Your task to perform on an android device: When is my next meeting? Image 0: 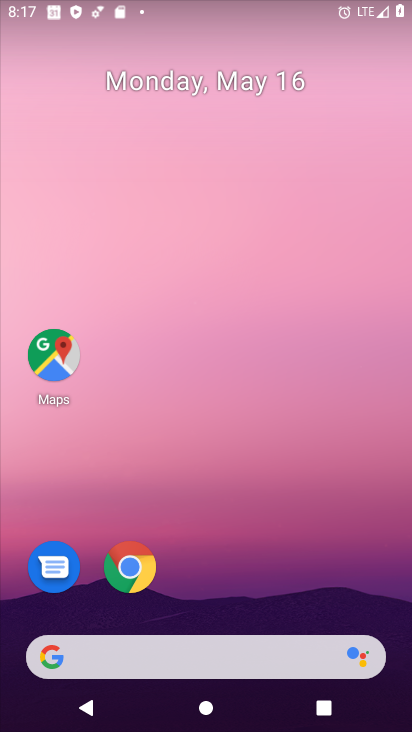
Step 0: drag from (193, 635) to (229, 329)
Your task to perform on an android device: When is my next meeting? Image 1: 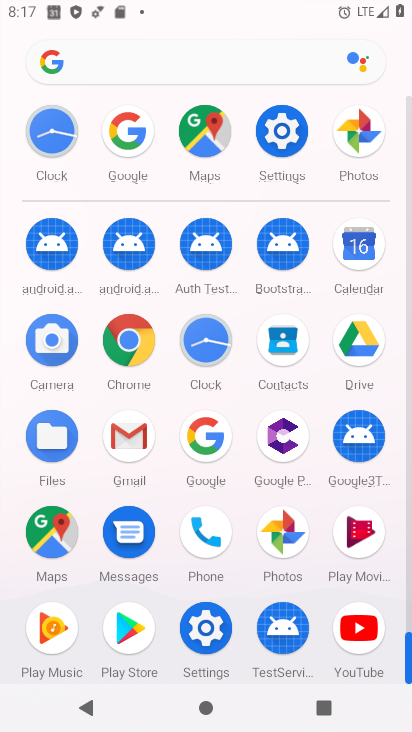
Step 1: click (365, 275)
Your task to perform on an android device: When is my next meeting? Image 2: 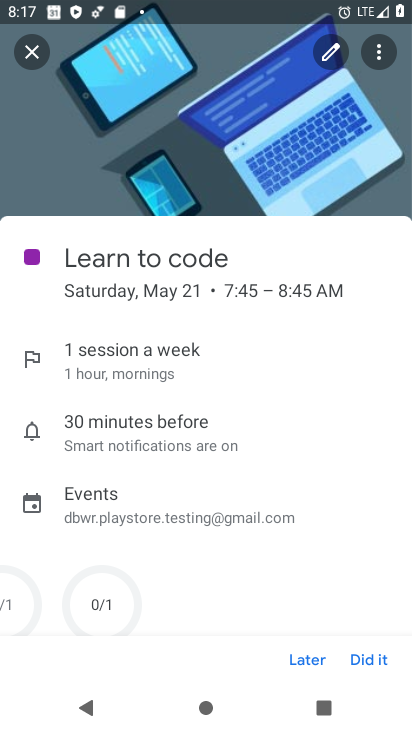
Step 2: click (37, 46)
Your task to perform on an android device: When is my next meeting? Image 3: 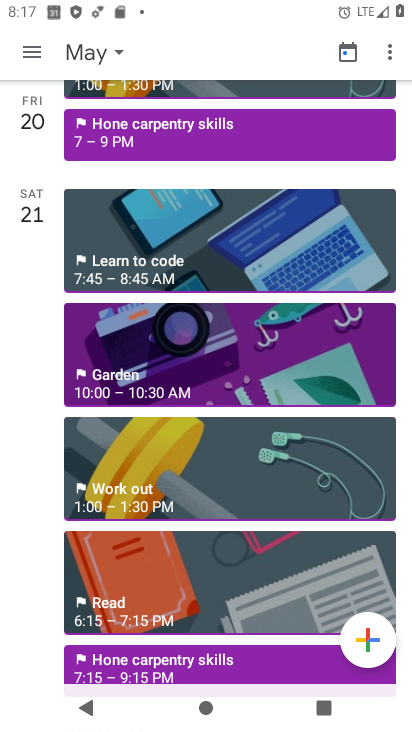
Step 3: drag from (175, 120) to (222, 527)
Your task to perform on an android device: When is my next meeting? Image 4: 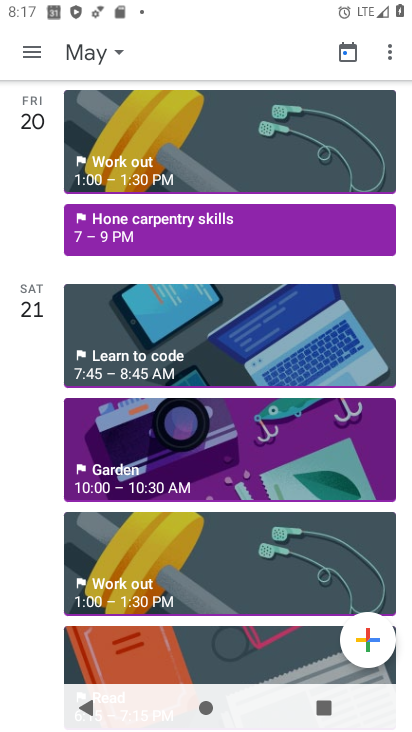
Step 4: drag from (227, 281) to (229, 658)
Your task to perform on an android device: When is my next meeting? Image 5: 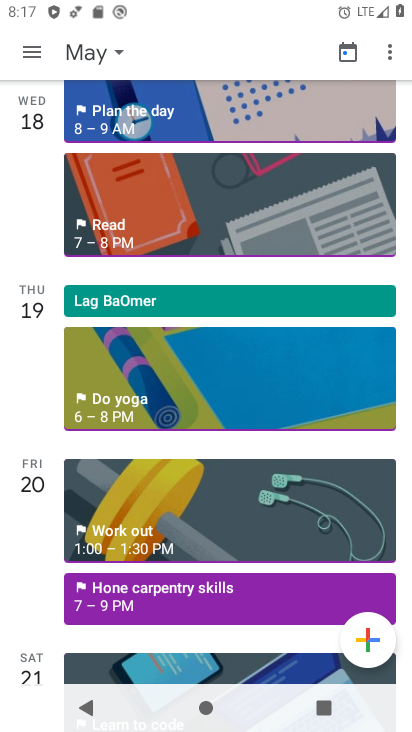
Step 5: drag from (261, 127) to (267, 571)
Your task to perform on an android device: When is my next meeting? Image 6: 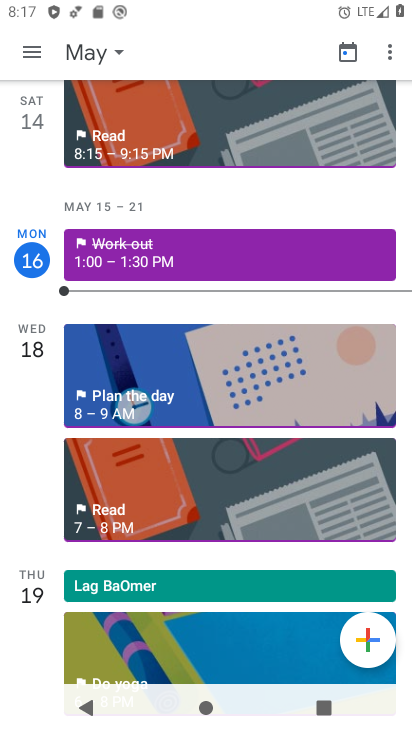
Step 6: click (169, 272)
Your task to perform on an android device: When is my next meeting? Image 7: 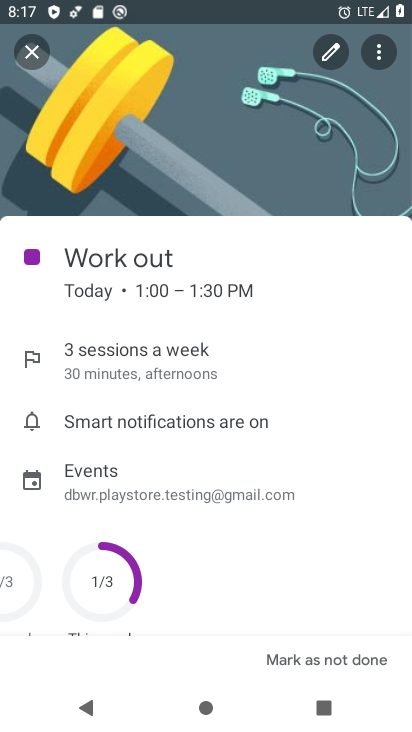
Step 7: task complete